Your task to perform on an android device: Open wifi settings Image 0: 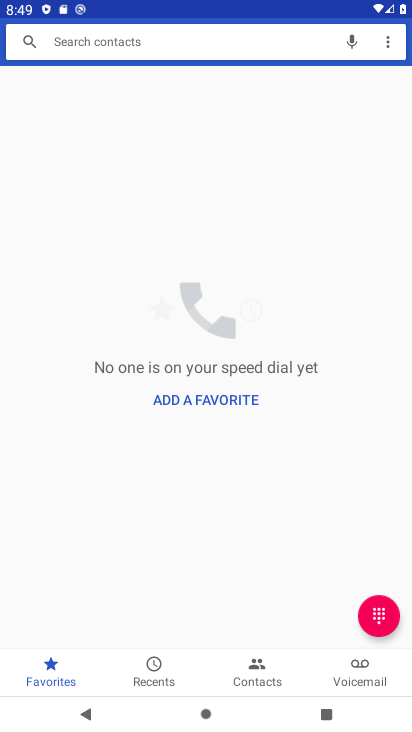
Step 0: press home button
Your task to perform on an android device: Open wifi settings Image 1: 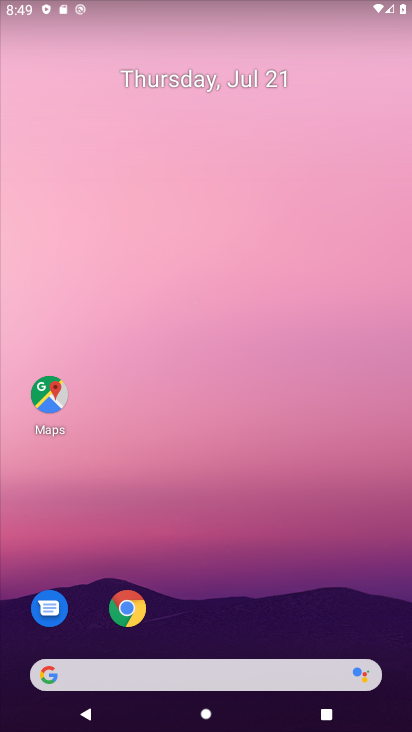
Step 1: drag from (264, 620) to (260, 138)
Your task to perform on an android device: Open wifi settings Image 2: 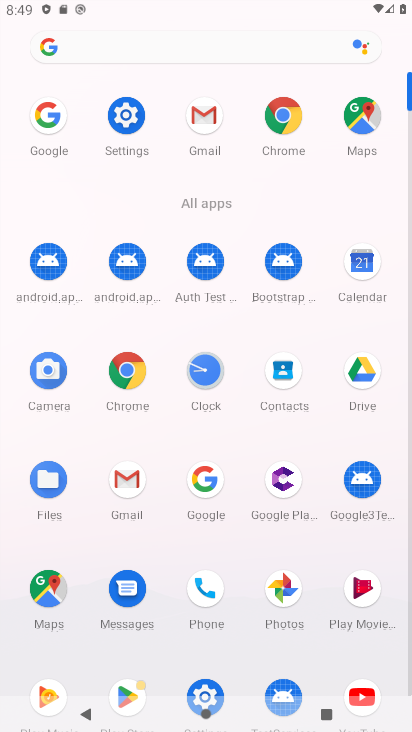
Step 2: click (134, 117)
Your task to perform on an android device: Open wifi settings Image 3: 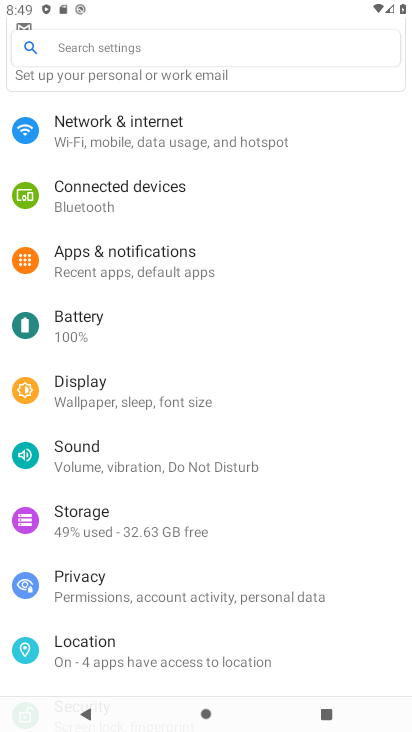
Step 3: click (146, 129)
Your task to perform on an android device: Open wifi settings Image 4: 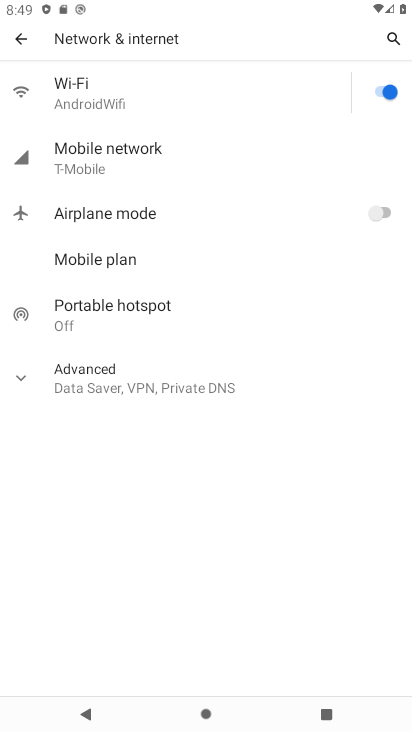
Step 4: click (165, 86)
Your task to perform on an android device: Open wifi settings Image 5: 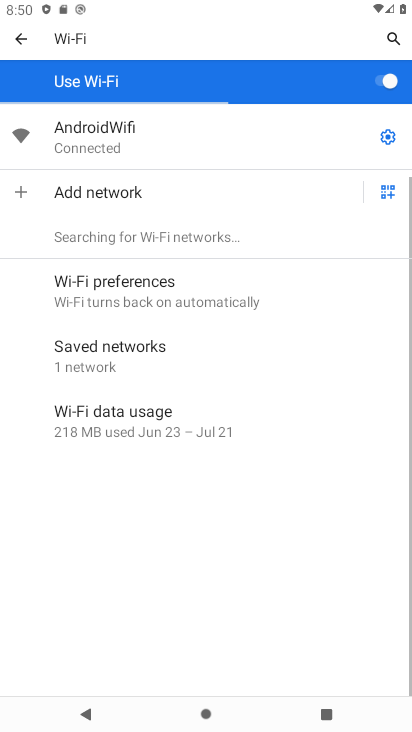
Step 5: task complete